Your task to perform on an android device: set the stopwatch Image 0: 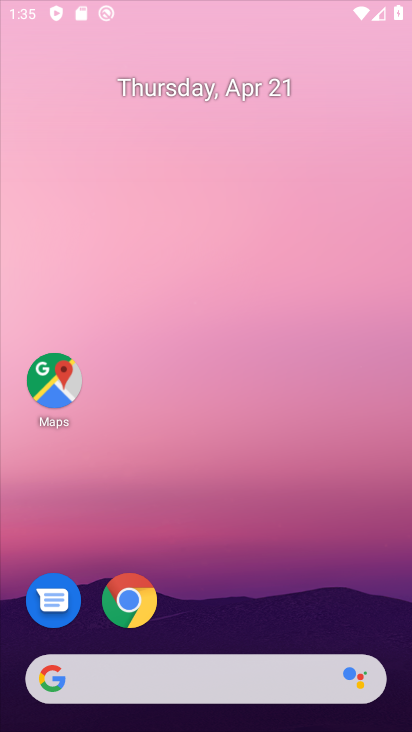
Step 0: click (130, 607)
Your task to perform on an android device: set the stopwatch Image 1: 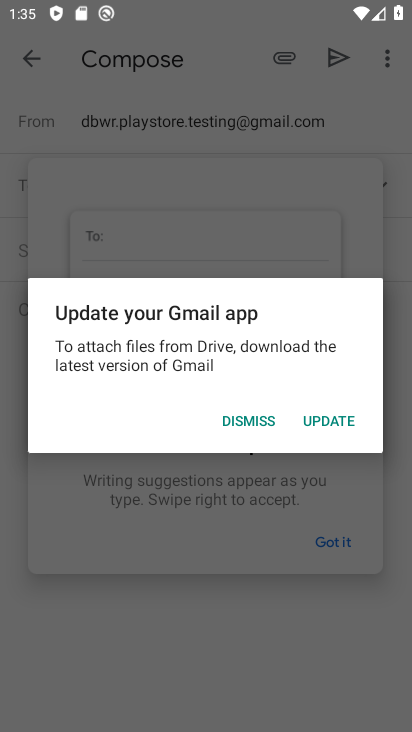
Step 1: click (232, 423)
Your task to perform on an android device: set the stopwatch Image 2: 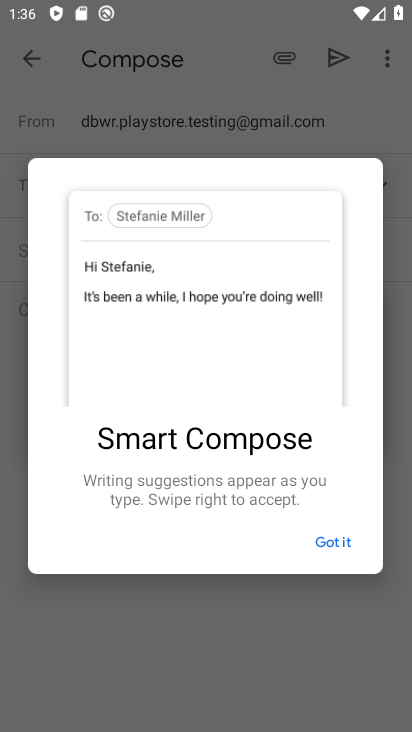
Step 2: press back button
Your task to perform on an android device: set the stopwatch Image 3: 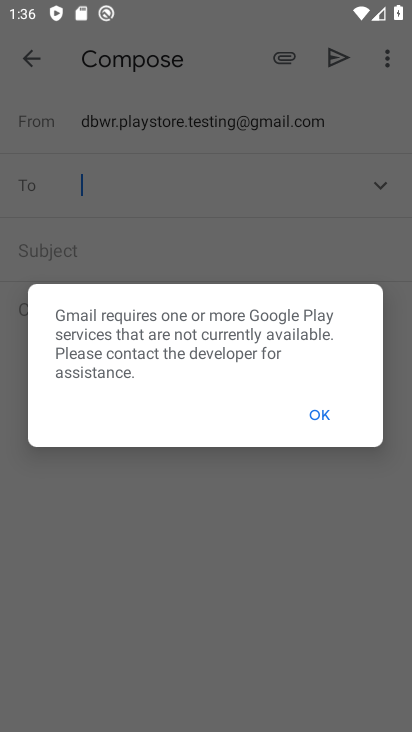
Step 3: click (317, 418)
Your task to perform on an android device: set the stopwatch Image 4: 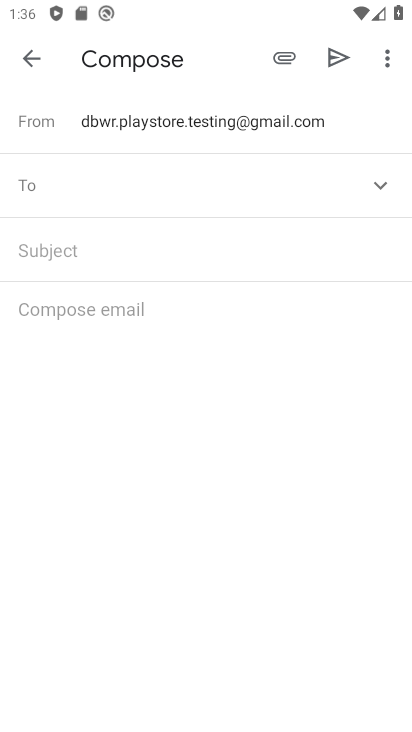
Step 4: press back button
Your task to perform on an android device: set the stopwatch Image 5: 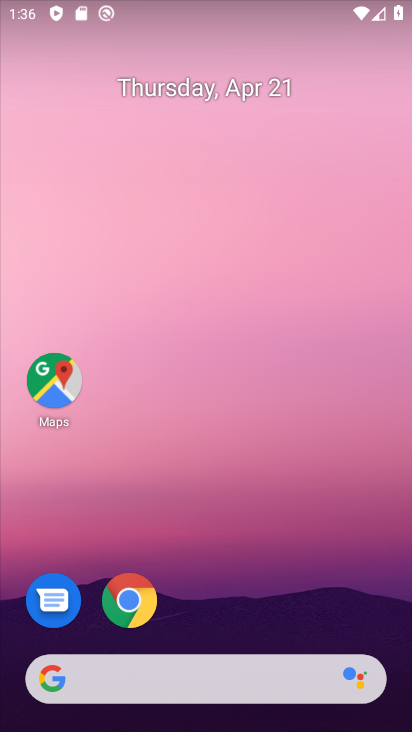
Step 5: drag from (254, 535) to (249, 75)
Your task to perform on an android device: set the stopwatch Image 6: 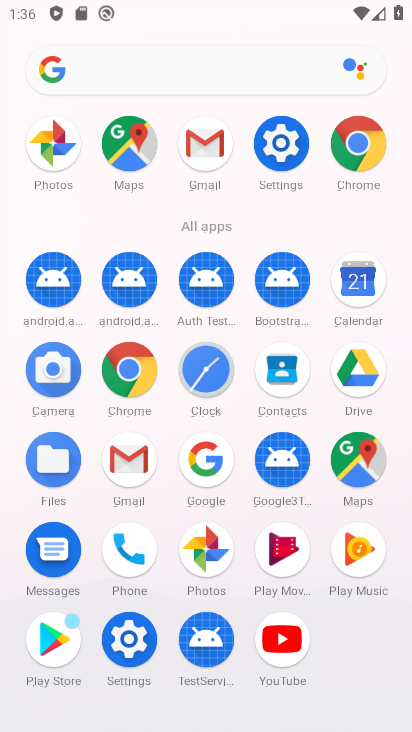
Step 6: click (202, 373)
Your task to perform on an android device: set the stopwatch Image 7: 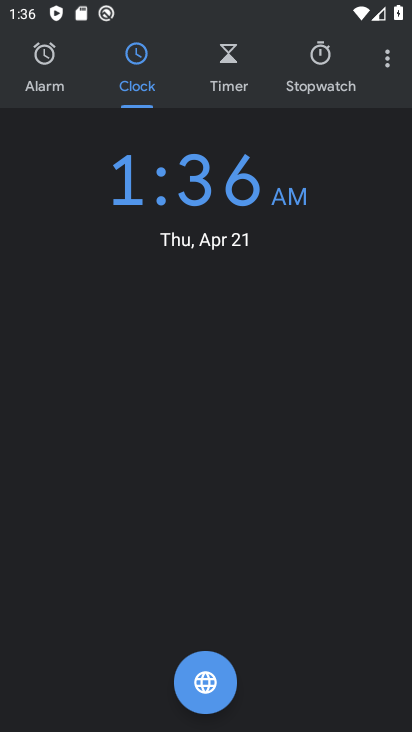
Step 7: click (316, 59)
Your task to perform on an android device: set the stopwatch Image 8: 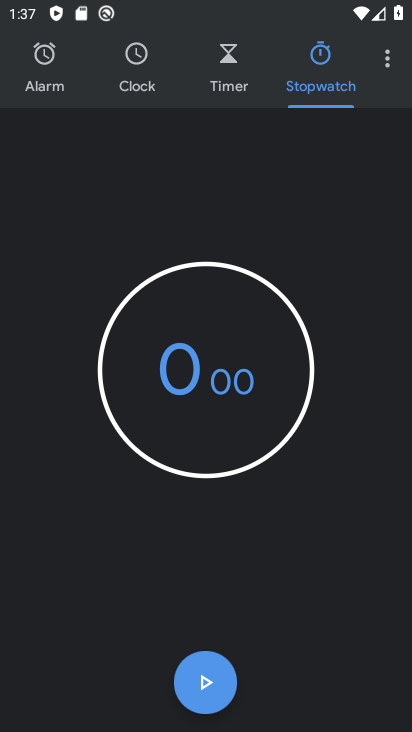
Step 8: click (224, 345)
Your task to perform on an android device: set the stopwatch Image 9: 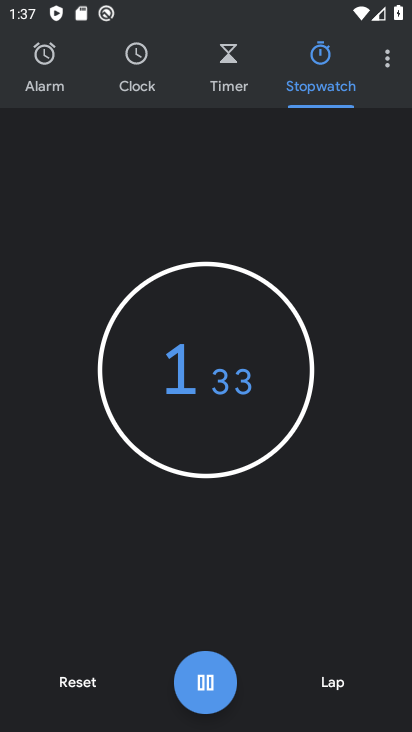
Step 9: click (210, 348)
Your task to perform on an android device: set the stopwatch Image 10: 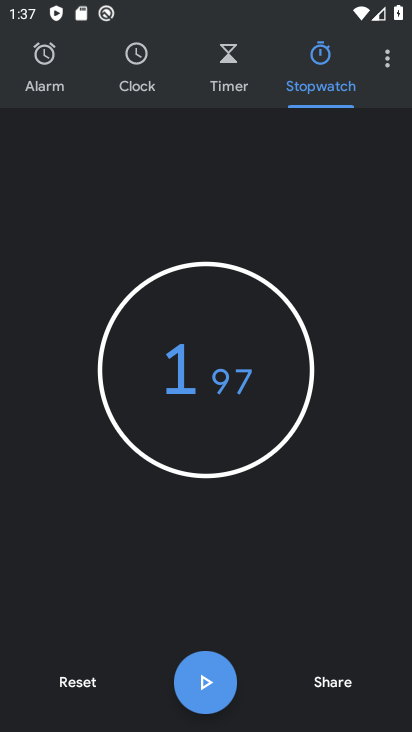
Step 10: task complete